Your task to perform on an android device: Open Google Chrome Image 0: 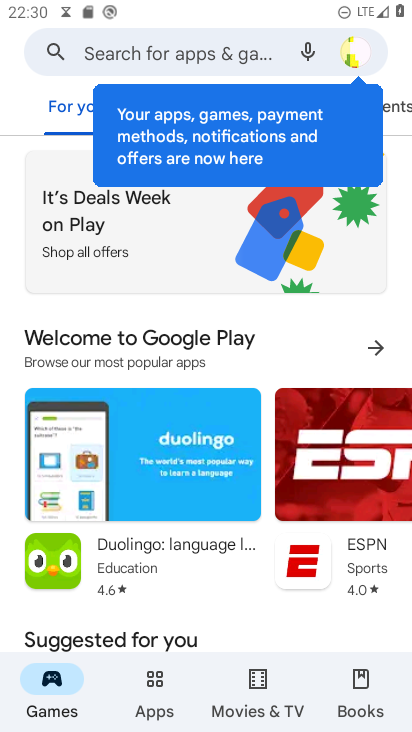
Step 0: press home button
Your task to perform on an android device: Open Google Chrome Image 1: 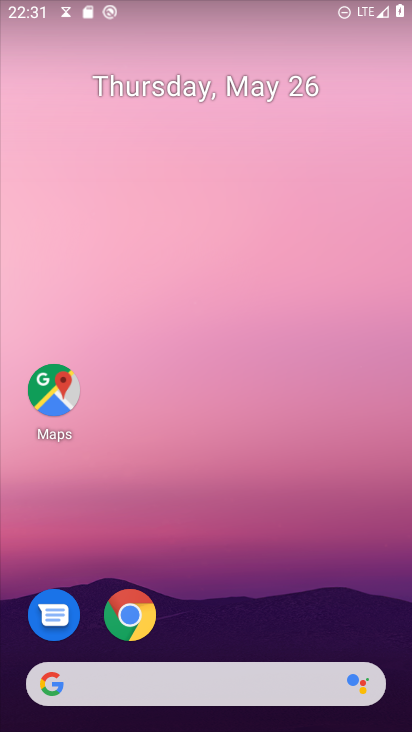
Step 1: click (128, 599)
Your task to perform on an android device: Open Google Chrome Image 2: 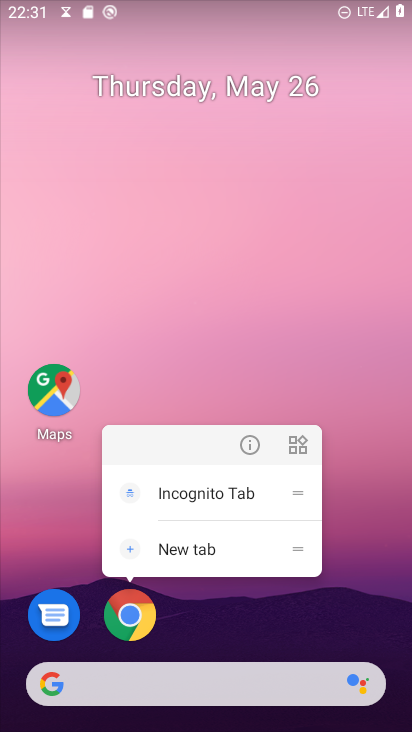
Step 2: click (136, 613)
Your task to perform on an android device: Open Google Chrome Image 3: 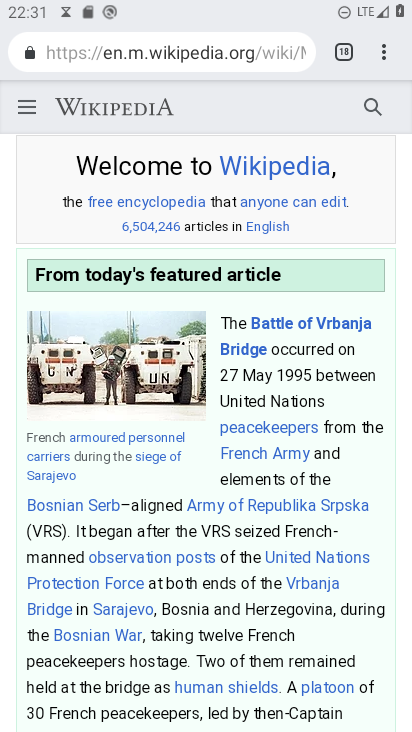
Step 3: task complete